Your task to perform on an android device: Open sound settings Image 0: 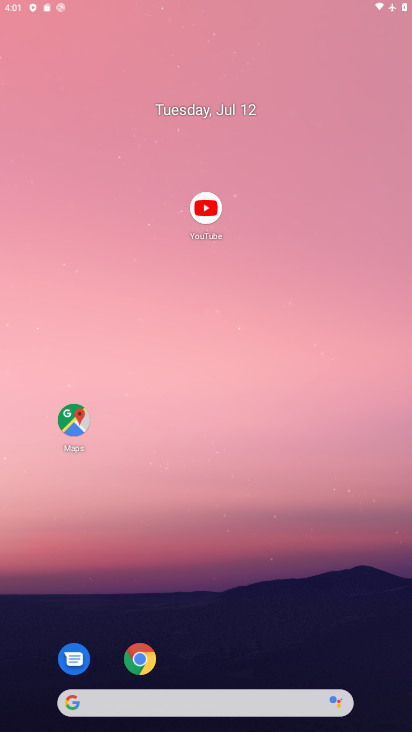
Step 0: drag from (285, 497) to (253, 227)
Your task to perform on an android device: Open sound settings Image 1: 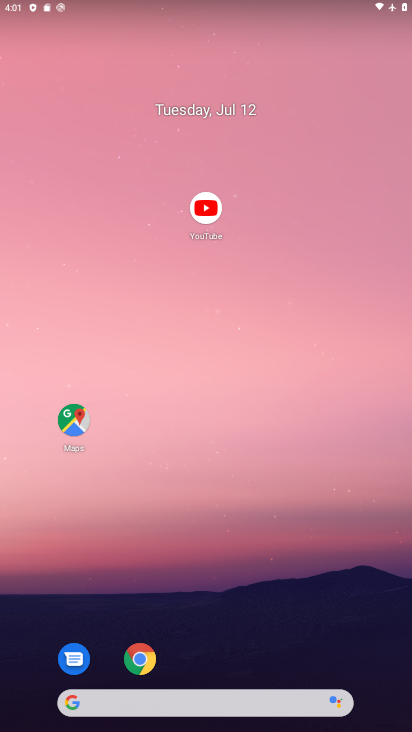
Step 1: drag from (153, 615) to (103, 103)
Your task to perform on an android device: Open sound settings Image 2: 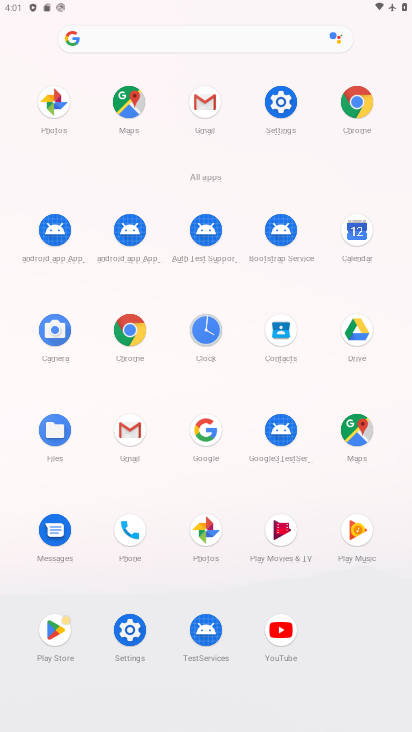
Step 2: click (281, 98)
Your task to perform on an android device: Open sound settings Image 3: 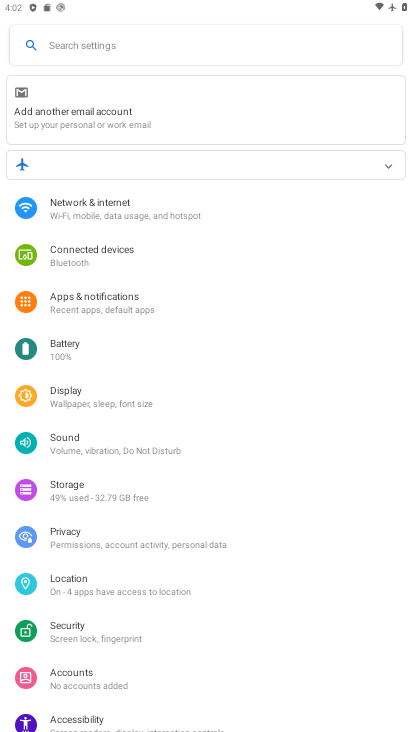
Step 3: click (75, 449)
Your task to perform on an android device: Open sound settings Image 4: 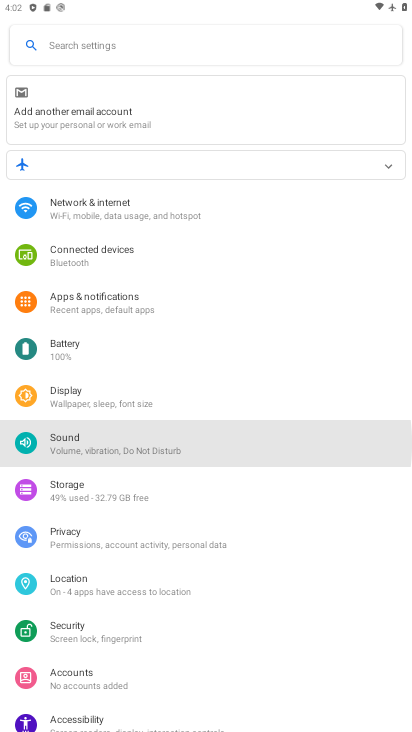
Step 4: click (76, 448)
Your task to perform on an android device: Open sound settings Image 5: 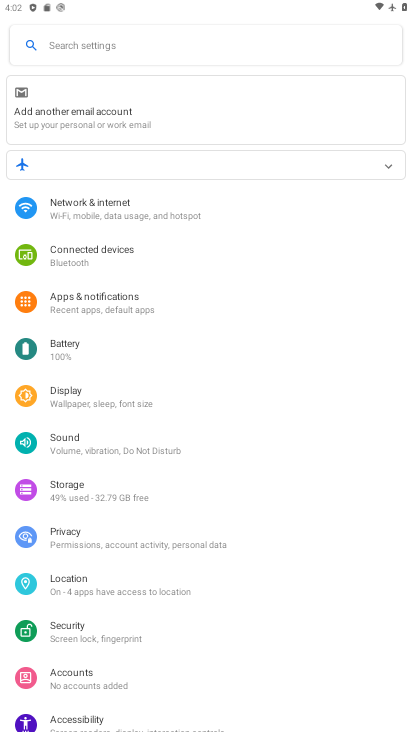
Step 5: click (82, 446)
Your task to perform on an android device: Open sound settings Image 6: 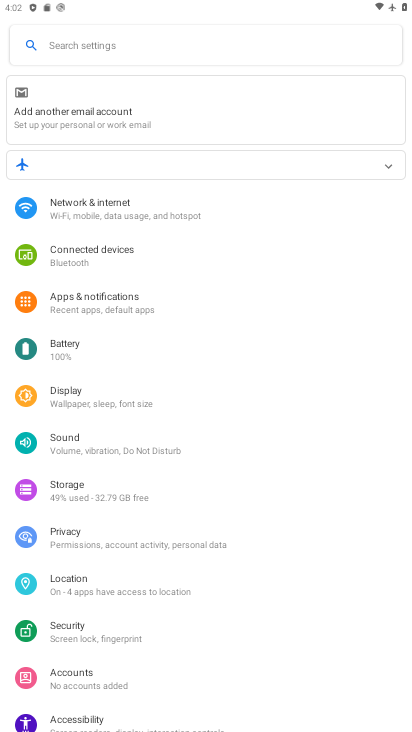
Step 6: click (83, 445)
Your task to perform on an android device: Open sound settings Image 7: 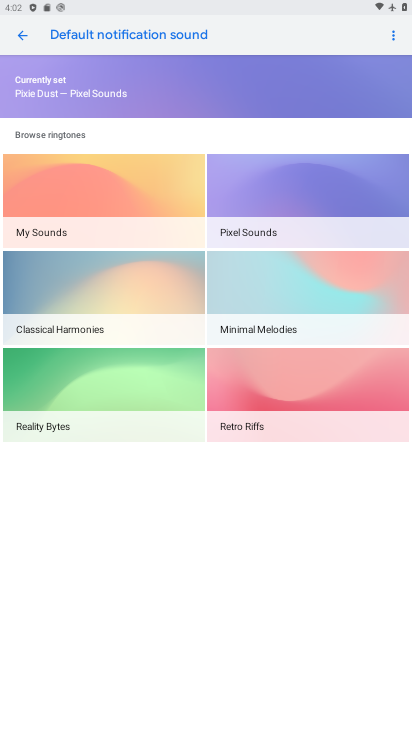
Step 7: click (25, 38)
Your task to perform on an android device: Open sound settings Image 8: 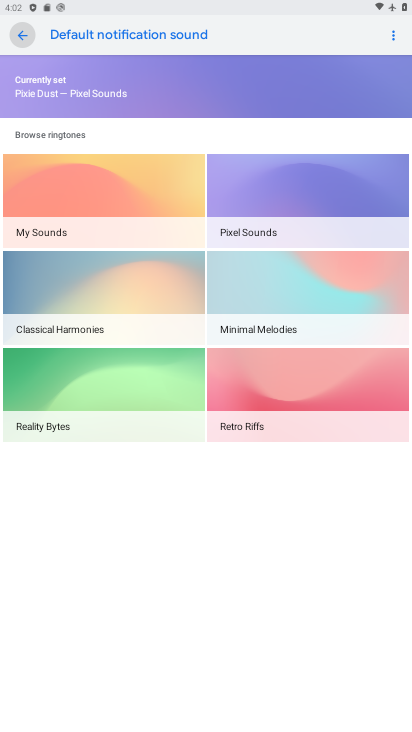
Step 8: click (24, 37)
Your task to perform on an android device: Open sound settings Image 9: 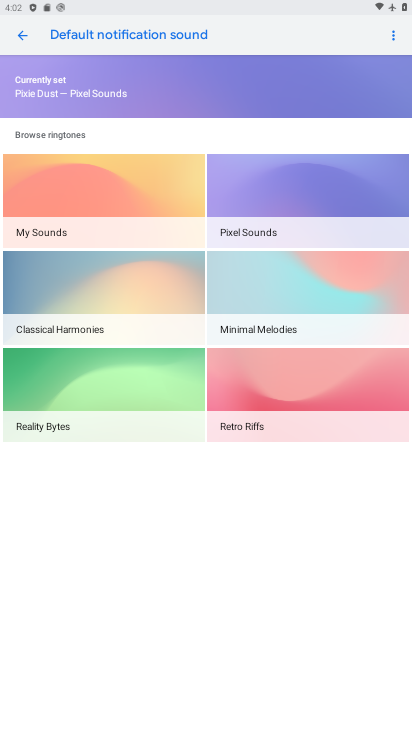
Step 9: click (24, 37)
Your task to perform on an android device: Open sound settings Image 10: 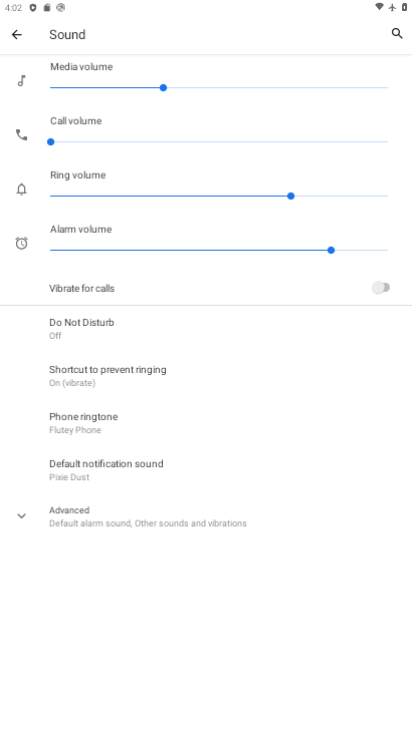
Step 10: click (26, 40)
Your task to perform on an android device: Open sound settings Image 11: 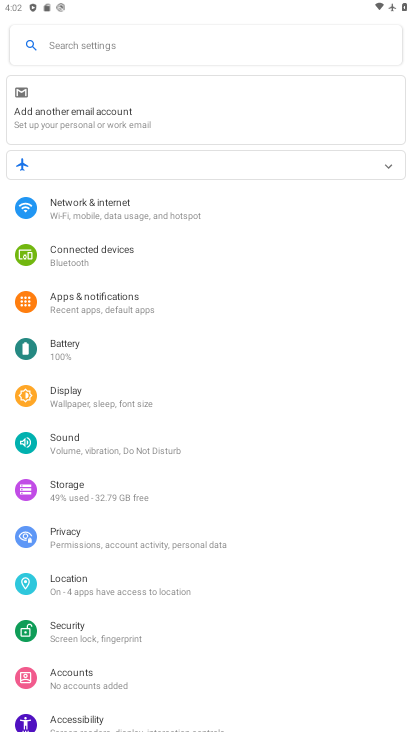
Step 11: click (73, 439)
Your task to perform on an android device: Open sound settings Image 12: 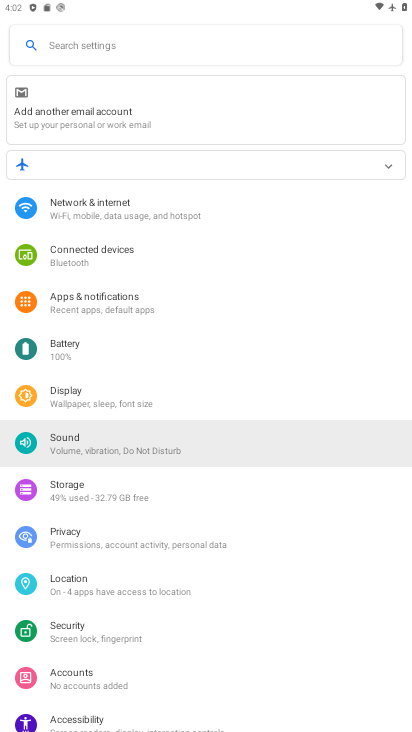
Step 12: click (73, 440)
Your task to perform on an android device: Open sound settings Image 13: 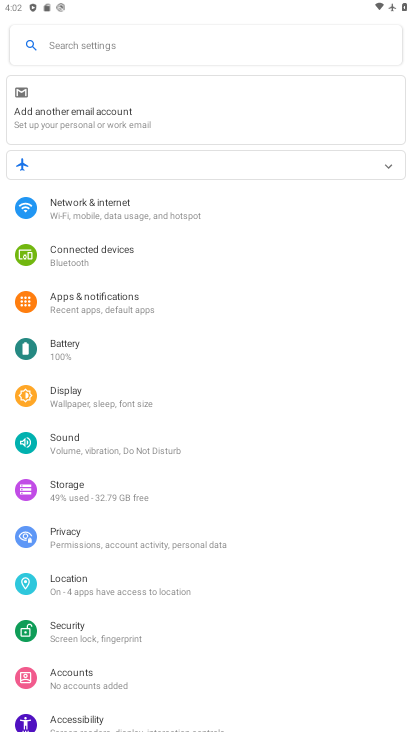
Step 13: click (73, 441)
Your task to perform on an android device: Open sound settings Image 14: 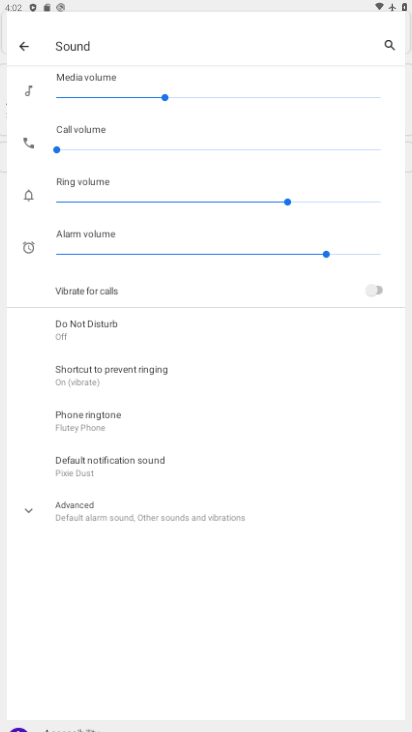
Step 14: click (73, 441)
Your task to perform on an android device: Open sound settings Image 15: 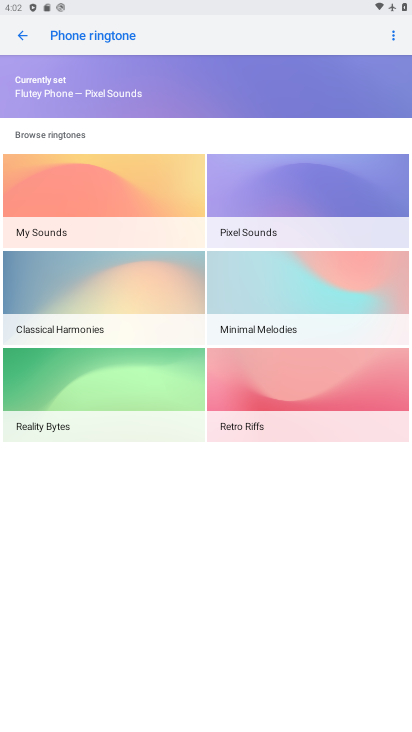
Step 15: task complete